Your task to perform on an android device: Open settings on Google Maps Image 0: 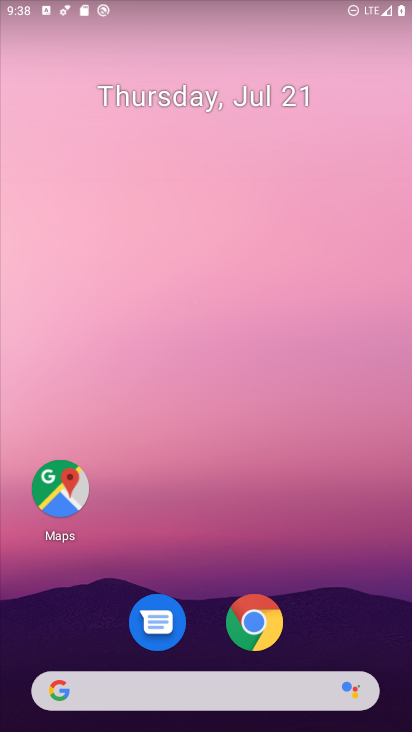
Step 0: click (71, 503)
Your task to perform on an android device: Open settings on Google Maps Image 1: 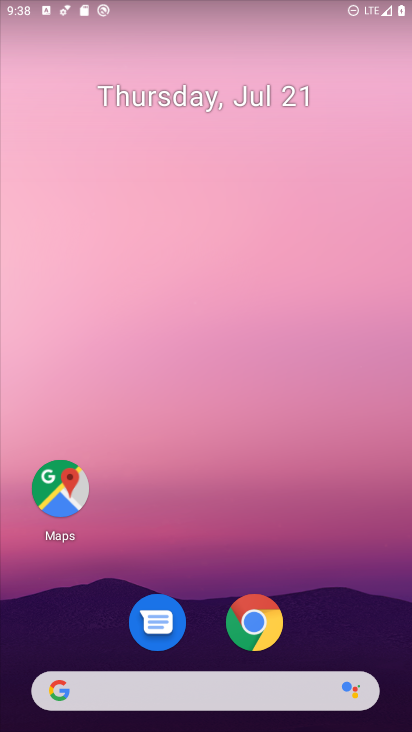
Step 1: click (71, 503)
Your task to perform on an android device: Open settings on Google Maps Image 2: 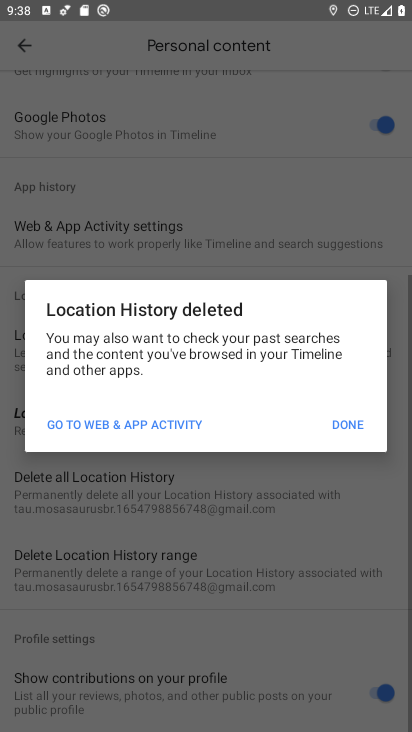
Step 2: click (24, 44)
Your task to perform on an android device: Open settings on Google Maps Image 3: 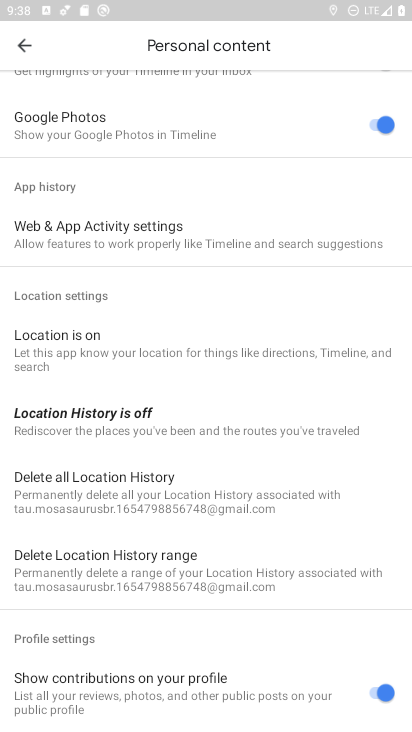
Step 3: click (24, 44)
Your task to perform on an android device: Open settings on Google Maps Image 4: 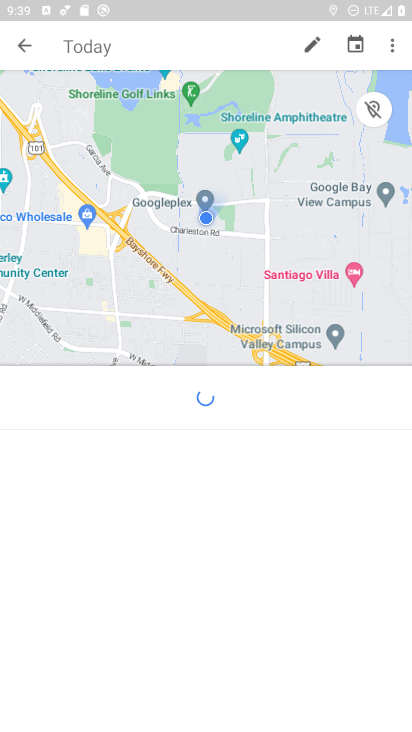
Step 4: click (24, 44)
Your task to perform on an android device: Open settings on Google Maps Image 5: 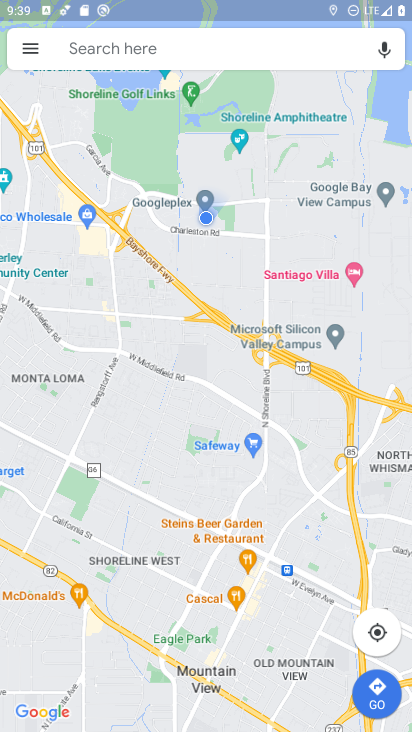
Step 5: click (24, 44)
Your task to perform on an android device: Open settings on Google Maps Image 6: 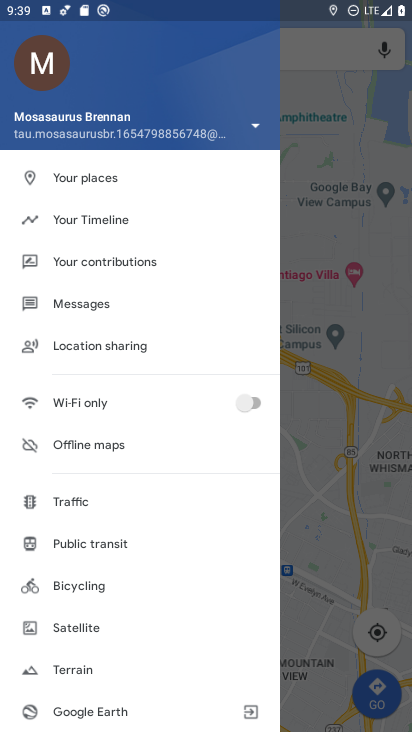
Step 6: drag from (176, 682) to (116, 139)
Your task to perform on an android device: Open settings on Google Maps Image 7: 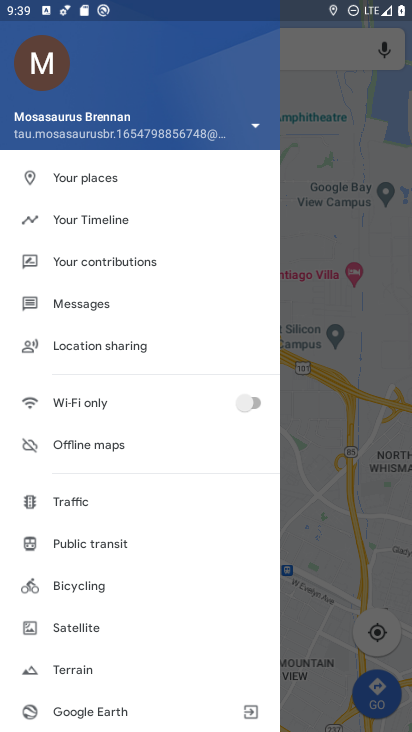
Step 7: drag from (147, 607) to (165, 243)
Your task to perform on an android device: Open settings on Google Maps Image 8: 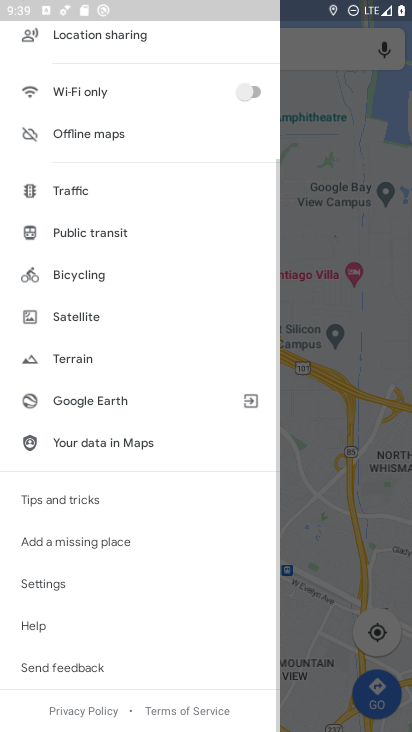
Step 8: click (65, 588)
Your task to perform on an android device: Open settings on Google Maps Image 9: 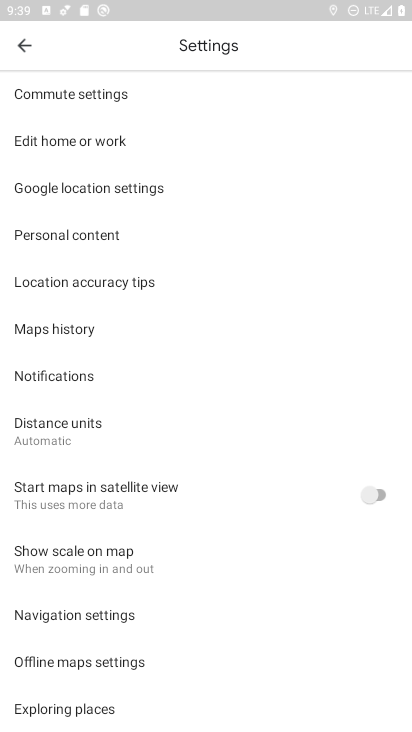
Step 9: task complete